Your task to perform on an android device: turn on the 12-hour format for clock Image 0: 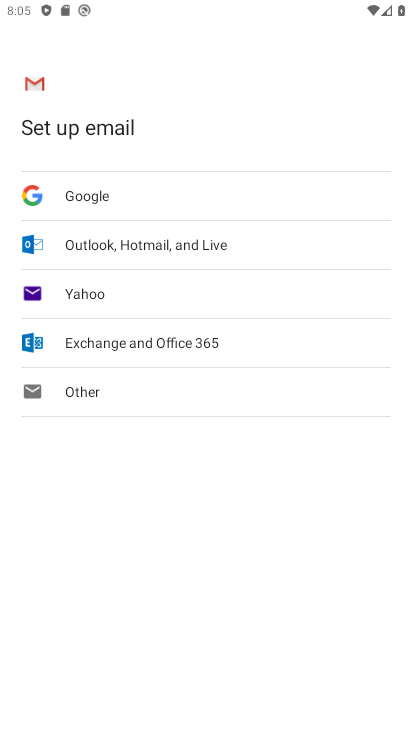
Step 0: press home button
Your task to perform on an android device: turn on the 12-hour format for clock Image 1: 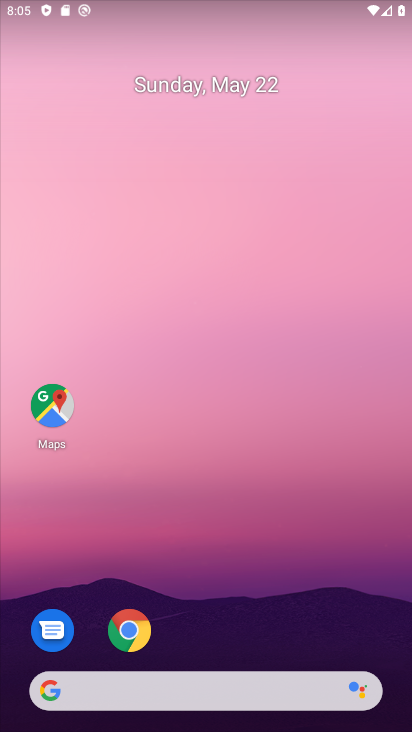
Step 1: drag from (241, 643) to (247, 117)
Your task to perform on an android device: turn on the 12-hour format for clock Image 2: 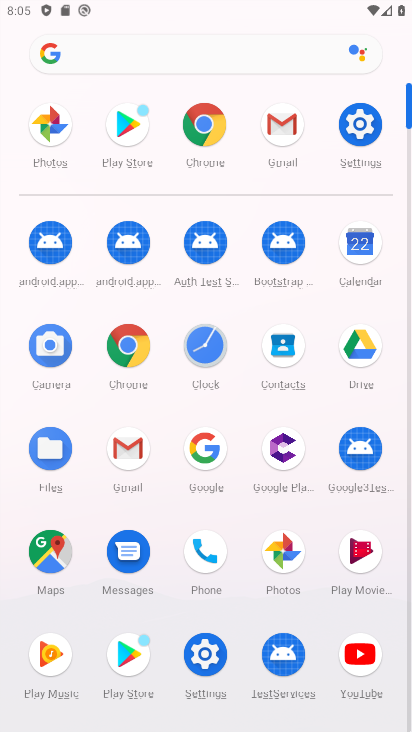
Step 2: click (213, 363)
Your task to perform on an android device: turn on the 12-hour format for clock Image 3: 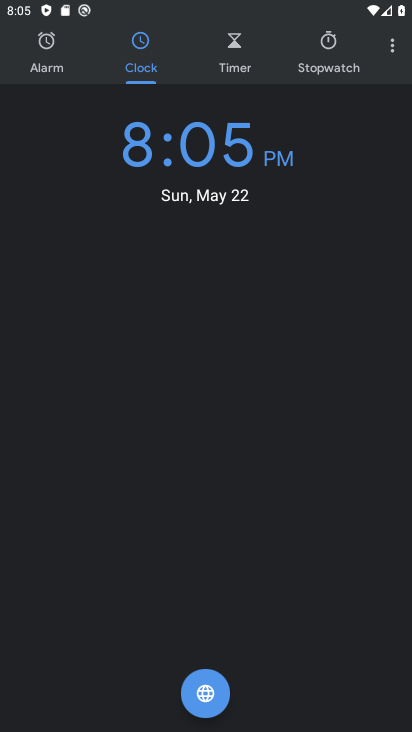
Step 3: click (389, 51)
Your task to perform on an android device: turn on the 12-hour format for clock Image 4: 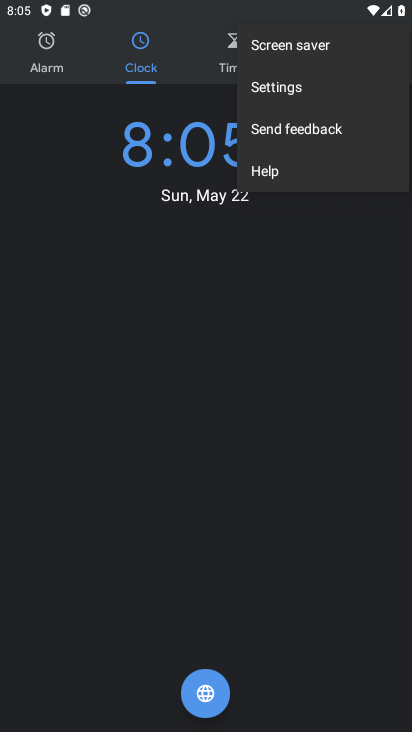
Step 4: click (326, 87)
Your task to perform on an android device: turn on the 12-hour format for clock Image 5: 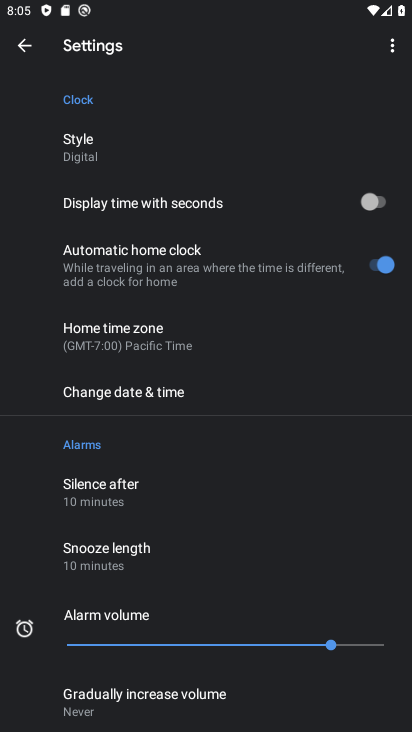
Step 5: click (214, 383)
Your task to perform on an android device: turn on the 12-hour format for clock Image 6: 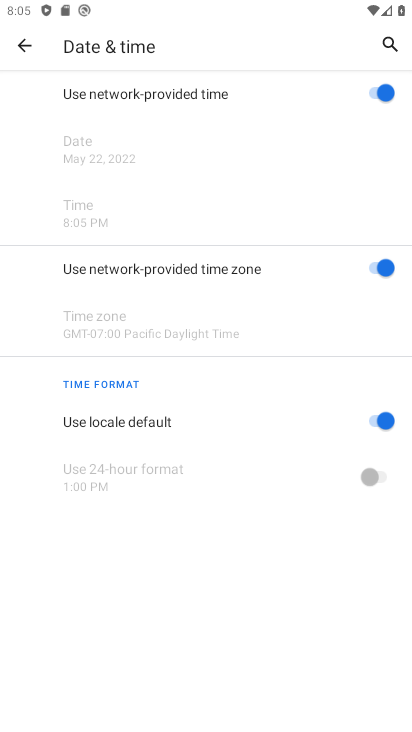
Step 6: click (389, 426)
Your task to perform on an android device: turn on the 12-hour format for clock Image 7: 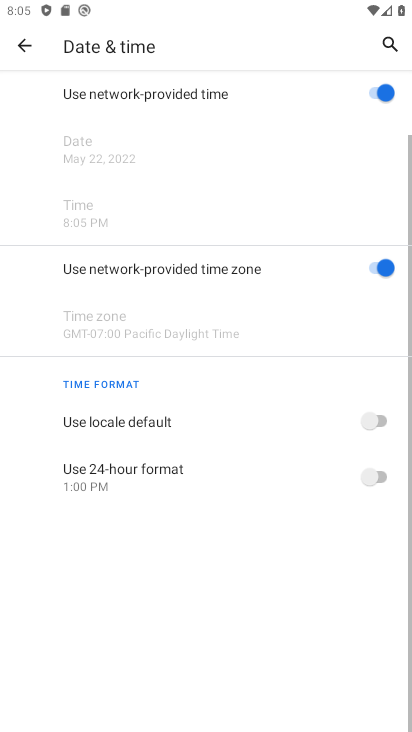
Step 7: click (369, 483)
Your task to perform on an android device: turn on the 12-hour format for clock Image 8: 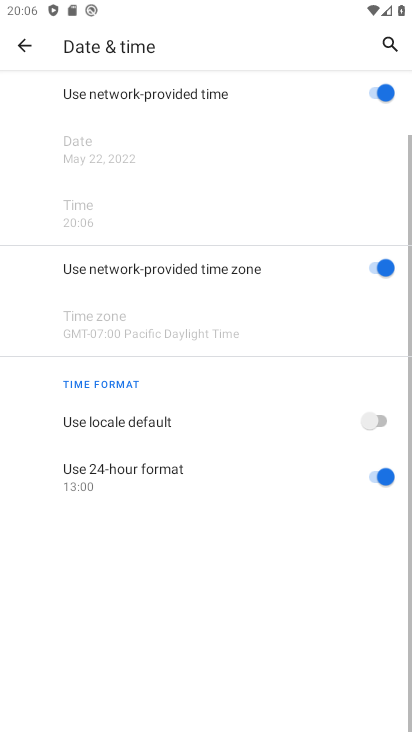
Step 8: click (369, 483)
Your task to perform on an android device: turn on the 12-hour format for clock Image 9: 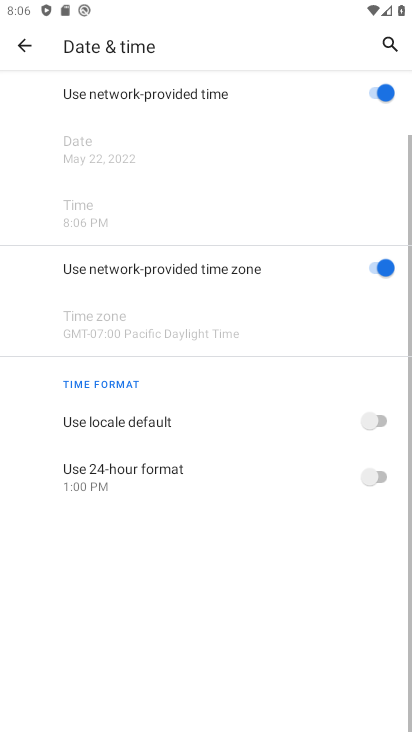
Step 9: task complete